Your task to perform on an android device: Go to notification settings Image 0: 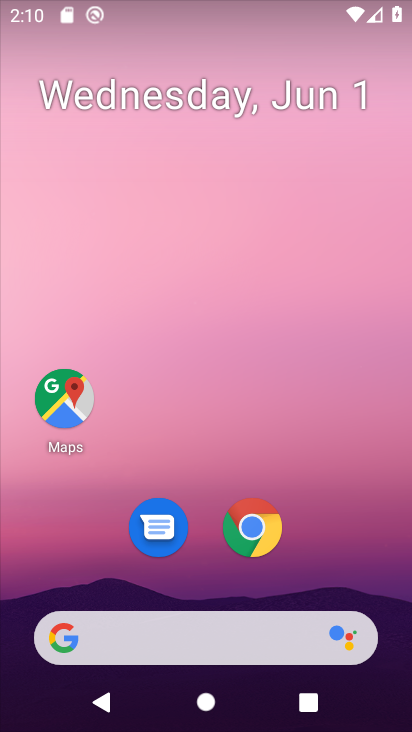
Step 0: drag from (211, 583) to (240, 8)
Your task to perform on an android device: Go to notification settings Image 1: 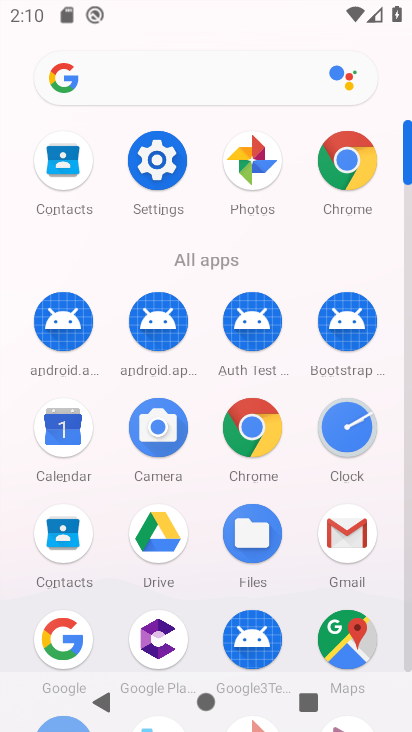
Step 1: click (158, 199)
Your task to perform on an android device: Go to notification settings Image 2: 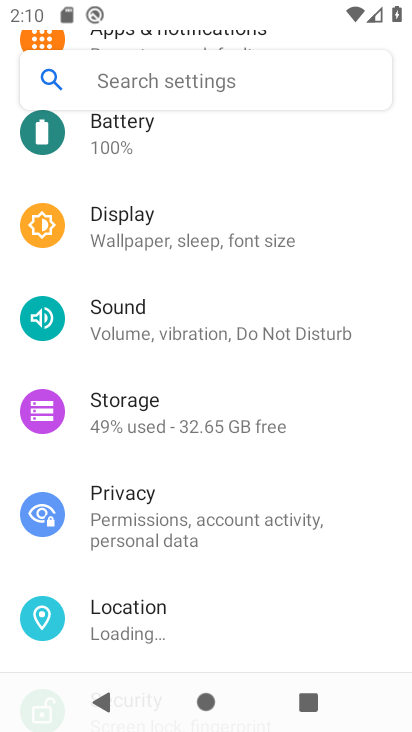
Step 2: drag from (198, 196) to (207, 588)
Your task to perform on an android device: Go to notification settings Image 3: 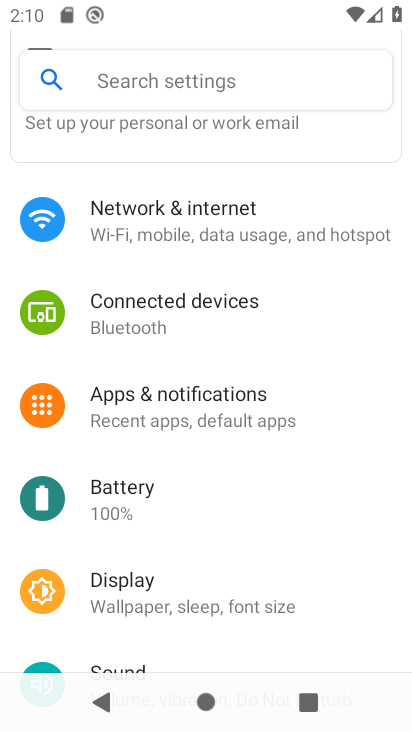
Step 3: click (219, 407)
Your task to perform on an android device: Go to notification settings Image 4: 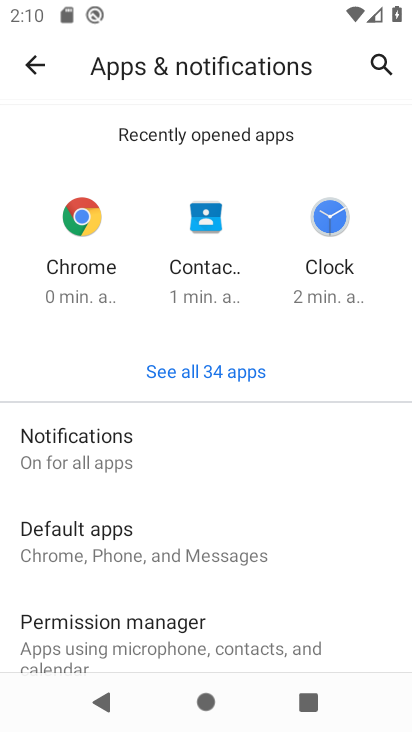
Step 4: click (131, 450)
Your task to perform on an android device: Go to notification settings Image 5: 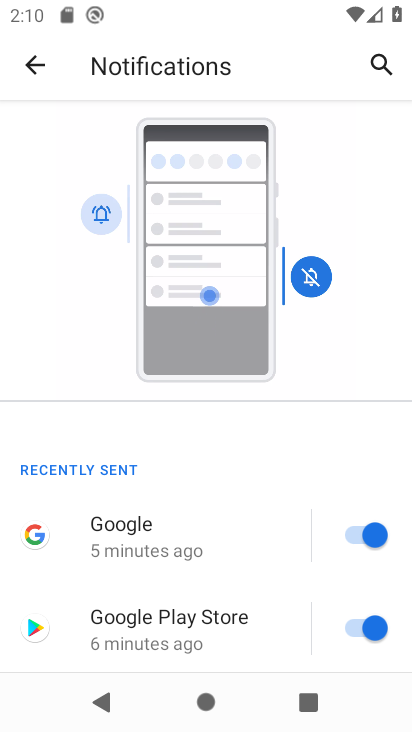
Step 5: task complete